Your task to perform on an android device: manage bookmarks in the chrome app Image 0: 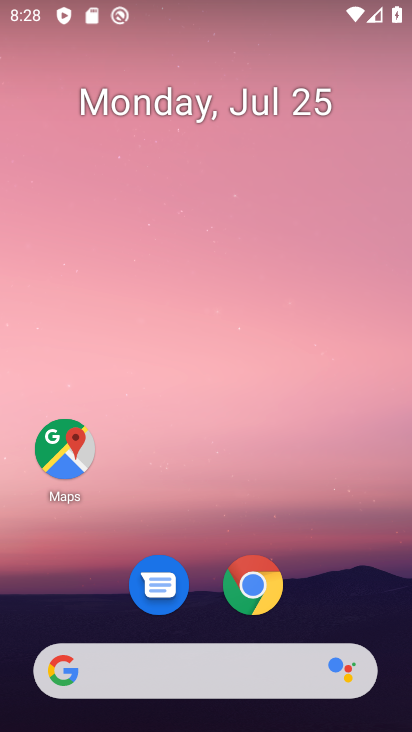
Step 0: click (258, 590)
Your task to perform on an android device: manage bookmarks in the chrome app Image 1: 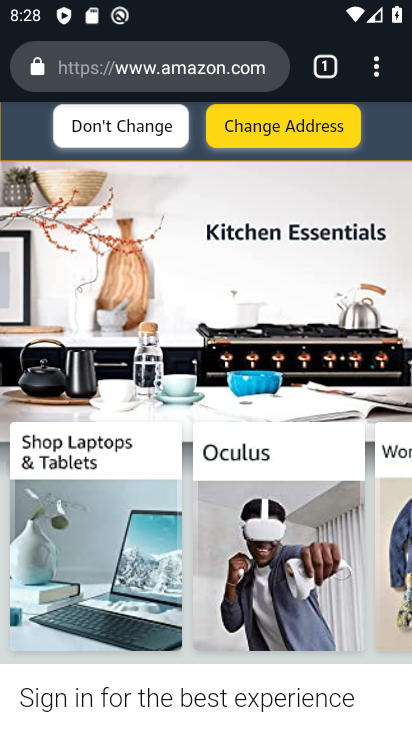
Step 1: drag from (368, 72) to (198, 268)
Your task to perform on an android device: manage bookmarks in the chrome app Image 2: 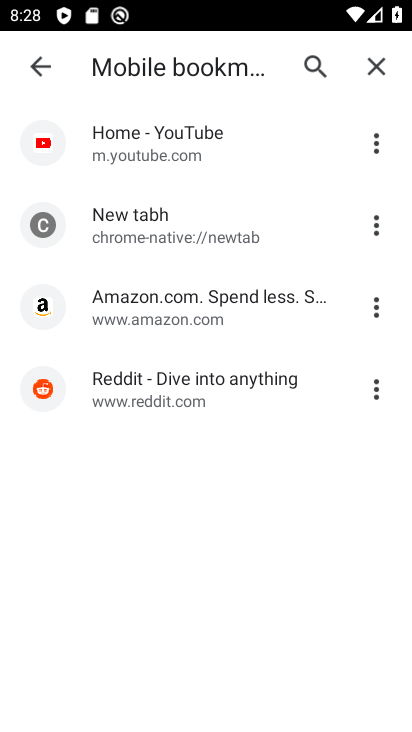
Step 2: click (378, 143)
Your task to perform on an android device: manage bookmarks in the chrome app Image 3: 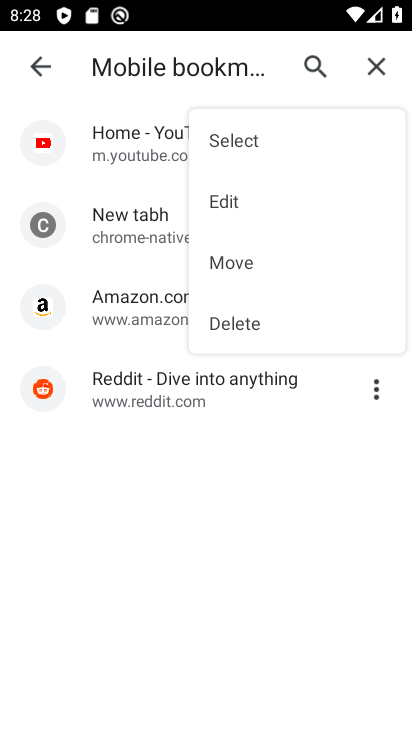
Step 3: click (243, 330)
Your task to perform on an android device: manage bookmarks in the chrome app Image 4: 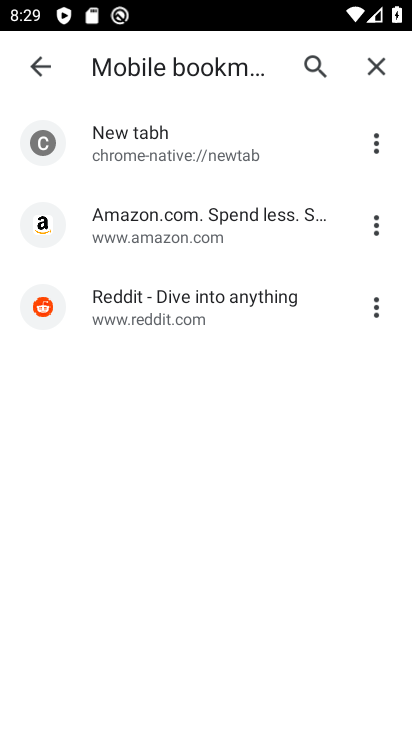
Step 4: task complete